Your task to perform on an android device: Open Chrome and go to the settings page Image 0: 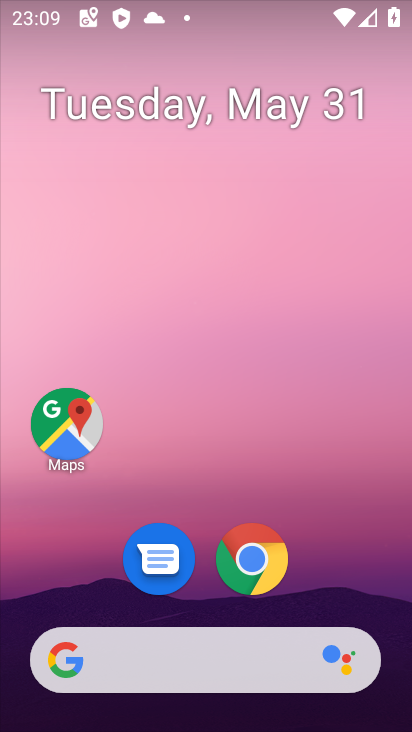
Step 0: click (258, 555)
Your task to perform on an android device: Open Chrome and go to the settings page Image 1: 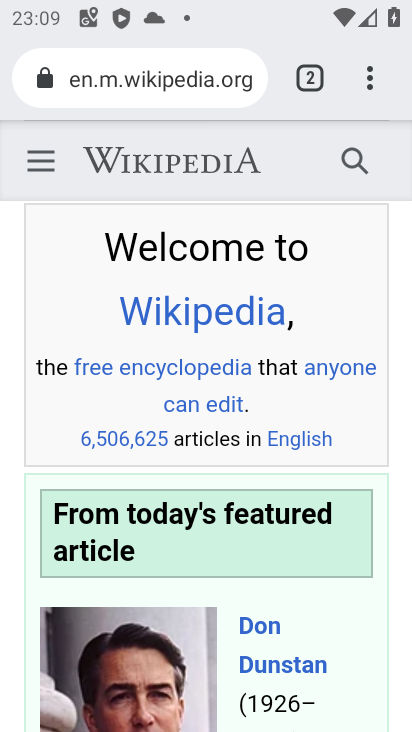
Step 1: click (363, 74)
Your task to perform on an android device: Open Chrome and go to the settings page Image 2: 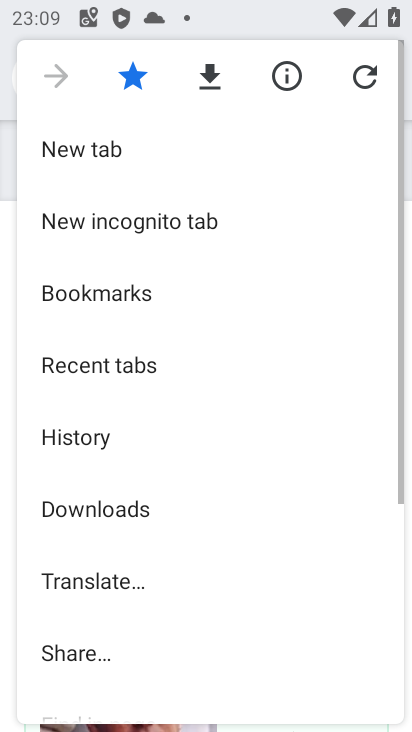
Step 2: drag from (181, 653) to (135, 163)
Your task to perform on an android device: Open Chrome and go to the settings page Image 3: 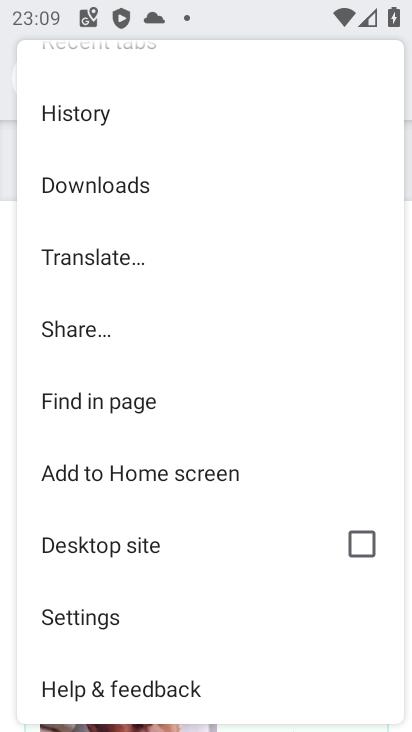
Step 3: click (151, 606)
Your task to perform on an android device: Open Chrome and go to the settings page Image 4: 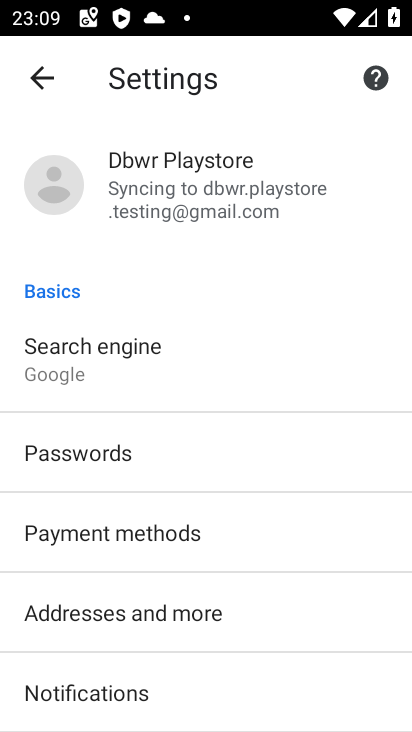
Step 4: task complete